Your task to perform on an android device: Go to Maps Image 0: 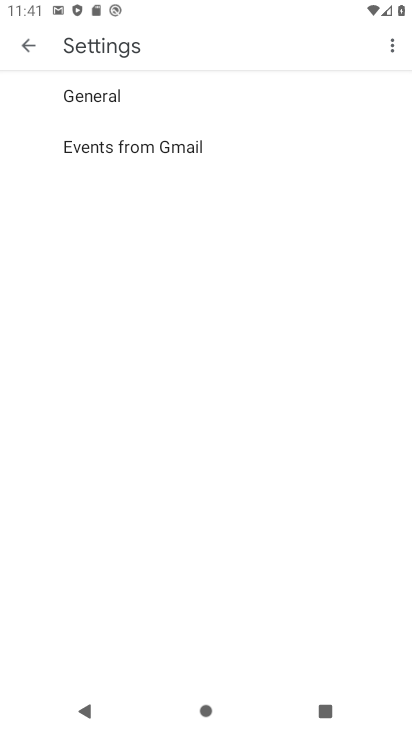
Step 0: press home button
Your task to perform on an android device: Go to Maps Image 1: 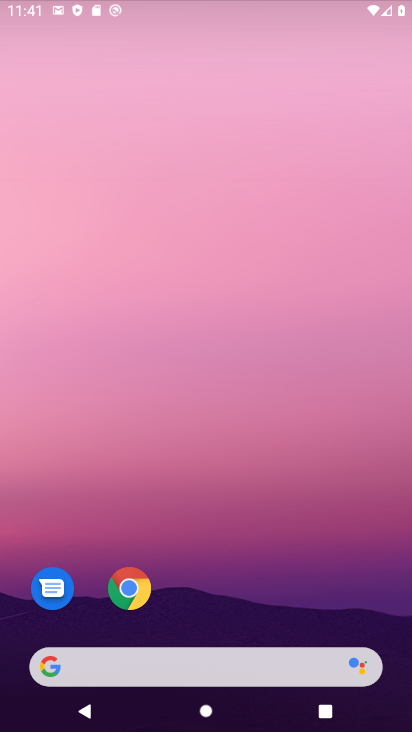
Step 1: drag from (339, 599) to (134, 37)
Your task to perform on an android device: Go to Maps Image 2: 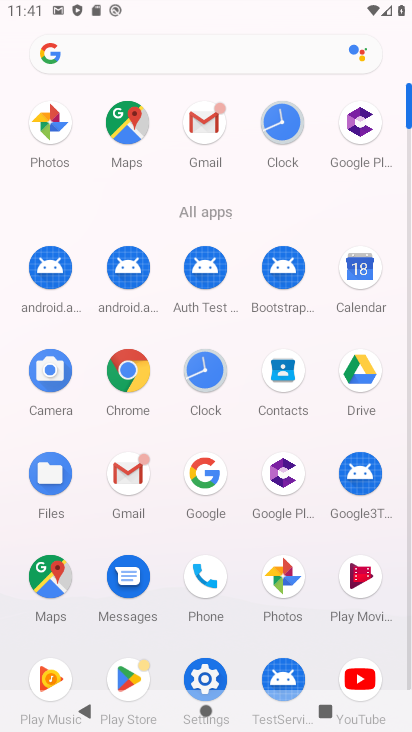
Step 2: click (55, 587)
Your task to perform on an android device: Go to Maps Image 3: 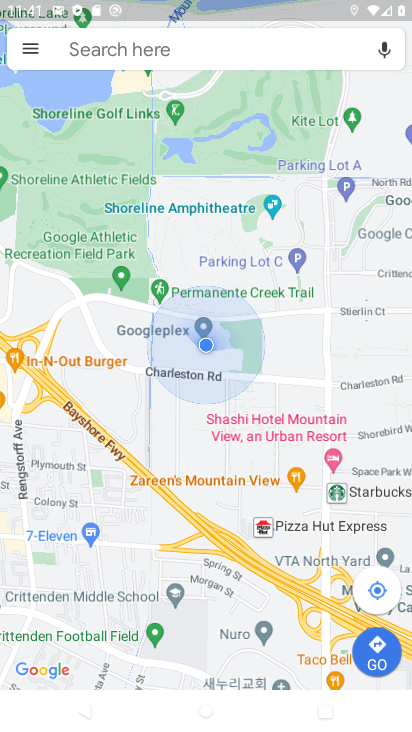
Step 3: task complete